Your task to perform on an android device: Go to ESPN.com Image 0: 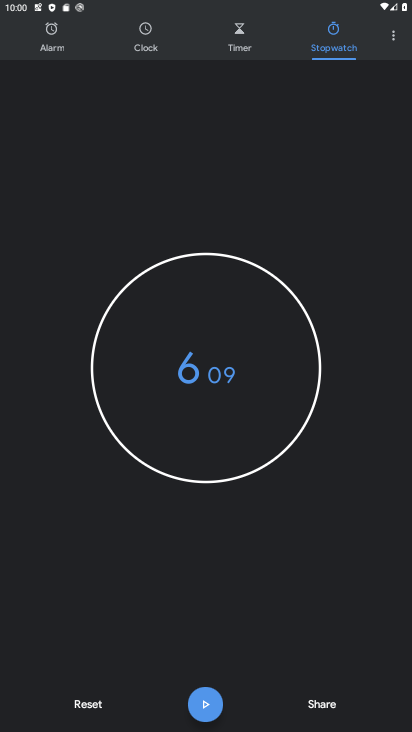
Step 0: press home button
Your task to perform on an android device: Go to ESPN.com Image 1: 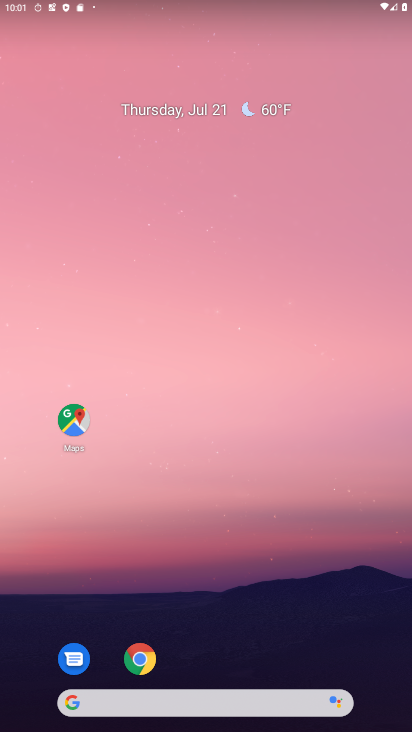
Step 1: drag from (260, 687) to (262, 299)
Your task to perform on an android device: Go to ESPN.com Image 2: 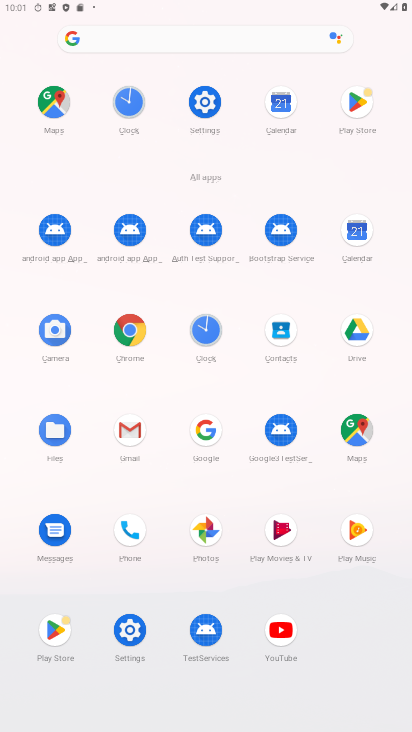
Step 2: click (129, 338)
Your task to perform on an android device: Go to ESPN.com Image 3: 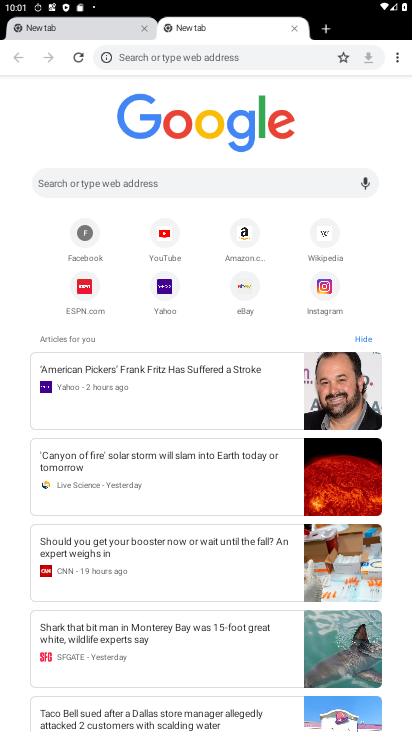
Step 3: click (91, 291)
Your task to perform on an android device: Go to ESPN.com Image 4: 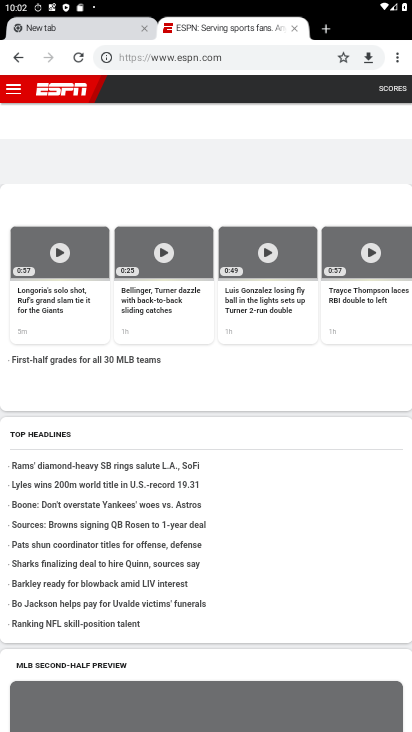
Step 4: task complete